Your task to perform on an android device: Open accessibility settings Image 0: 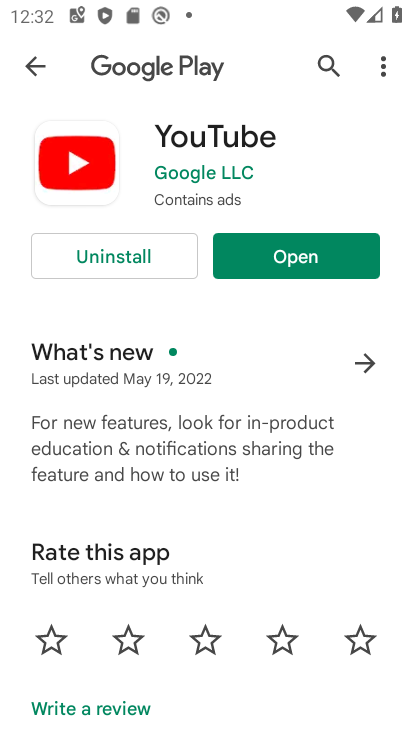
Step 0: press home button
Your task to perform on an android device: Open accessibility settings Image 1: 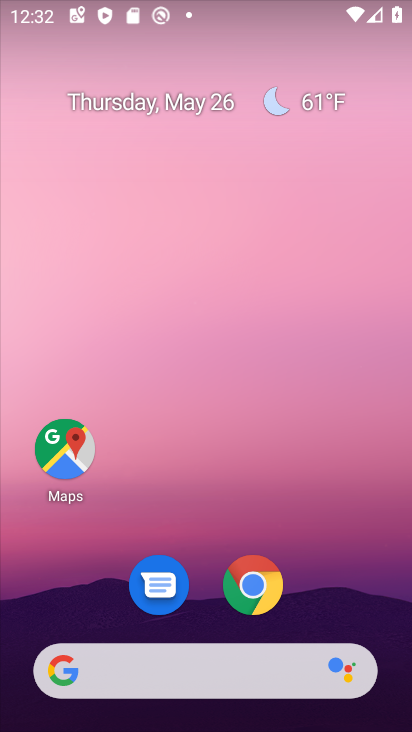
Step 1: drag from (210, 508) to (219, 30)
Your task to perform on an android device: Open accessibility settings Image 2: 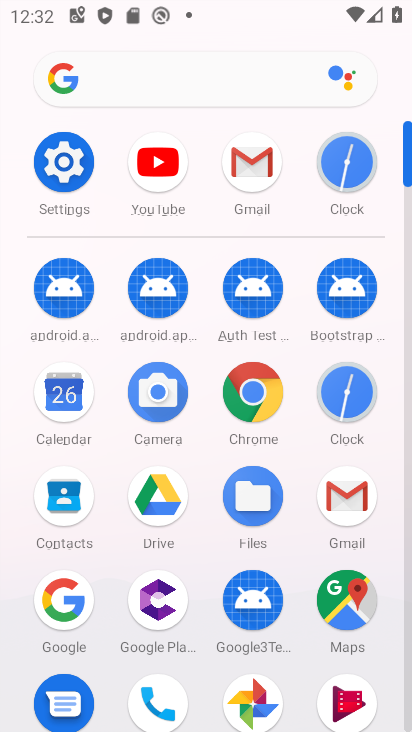
Step 2: click (68, 163)
Your task to perform on an android device: Open accessibility settings Image 3: 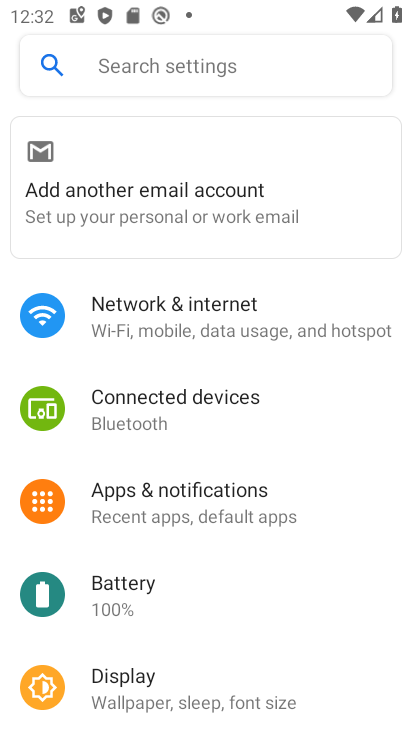
Step 3: drag from (234, 627) to (238, 101)
Your task to perform on an android device: Open accessibility settings Image 4: 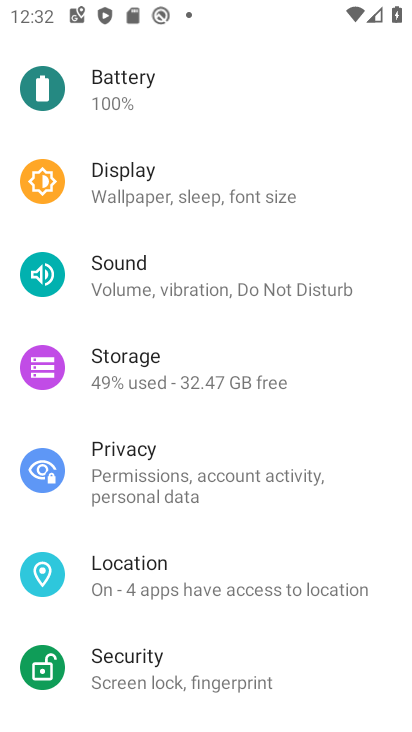
Step 4: drag from (215, 592) to (250, 151)
Your task to perform on an android device: Open accessibility settings Image 5: 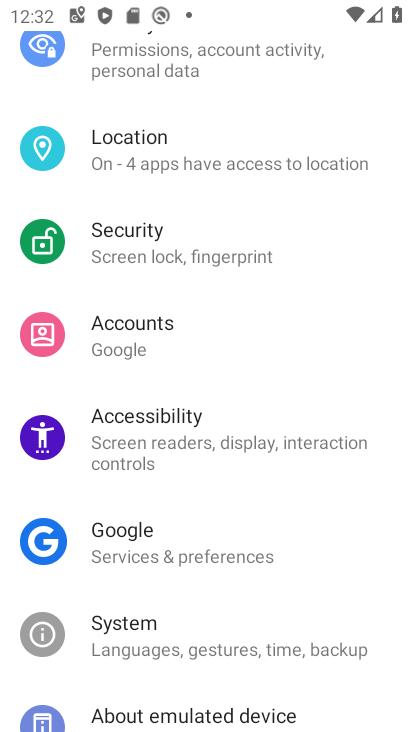
Step 5: click (213, 417)
Your task to perform on an android device: Open accessibility settings Image 6: 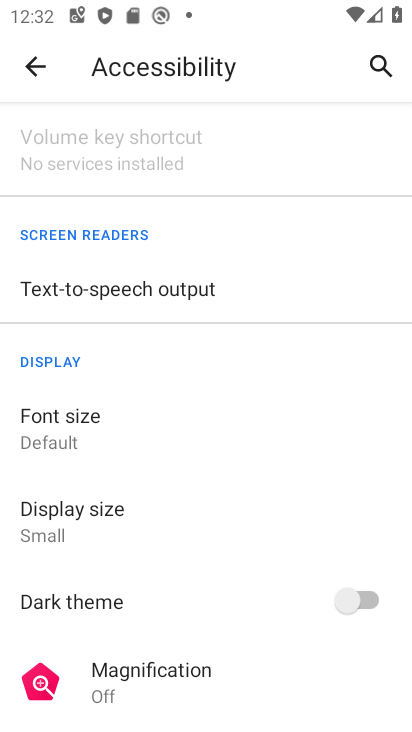
Step 6: task complete